Your task to perform on an android device: Is it going to rain tomorrow? Image 0: 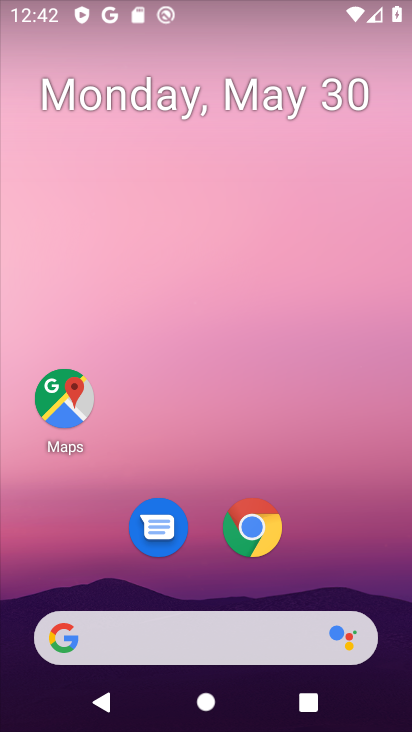
Step 0: click (266, 635)
Your task to perform on an android device: Is it going to rain tomorrow? Image 1: 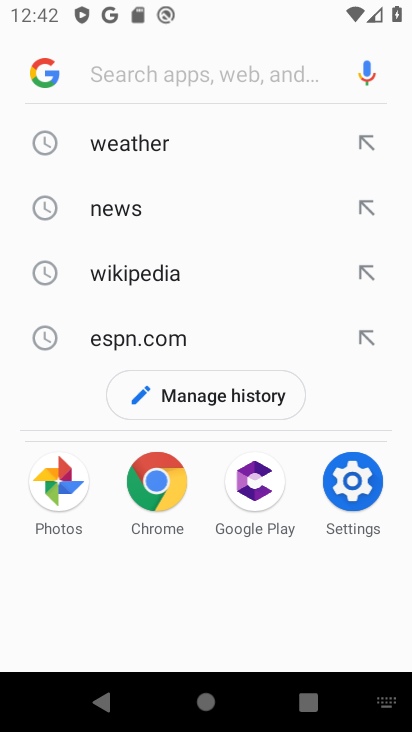
Step 1: type "Is it going to rain tomorrow?"
Your task to perform on an android device: Is it going to rain tomorrow? Image 2: 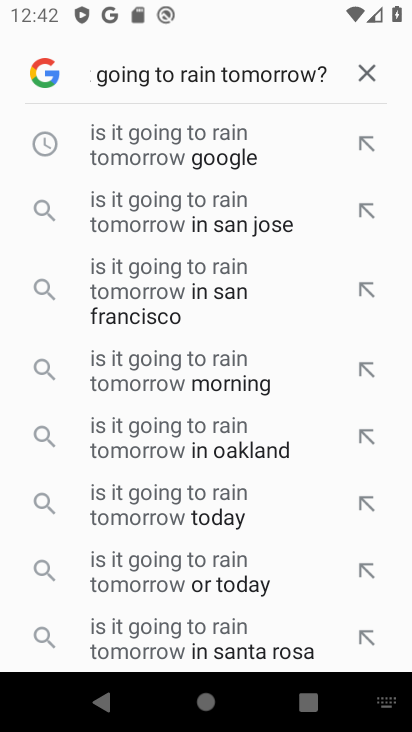
Step 2: click (249, 144)
Your task to perform on an android device: Is it going to rain tomorrow? Image 3: 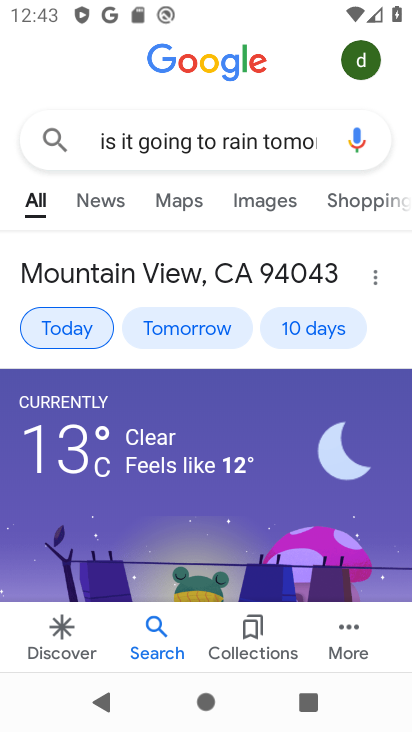
Step 3: task complete